Your task to perform on an android device: Check the news Image 0: 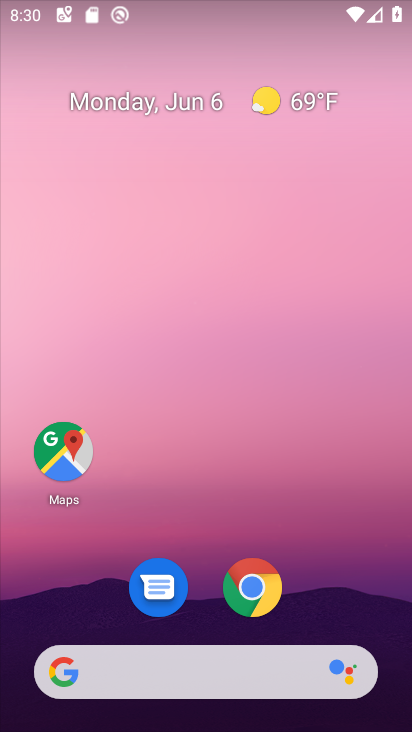
Step 0: drag from (312, 582) to (281, 213)
Your task to perform on an android device: Check the news Image 1: 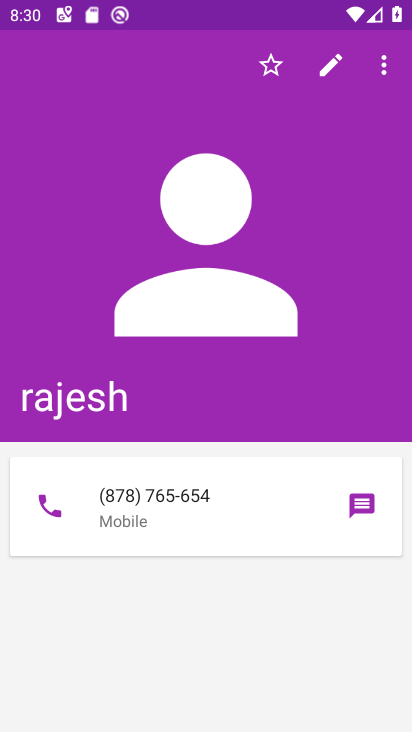
Step 1: press home button
Your task to perform on an android device: Check the news Image 2: 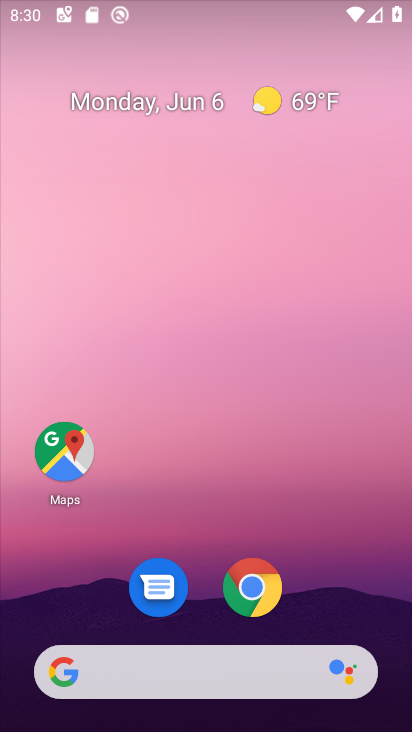
Step 2: drag from (338, 598) to (302, 217)
Your task to perform on an android device: Check the news Image 3: 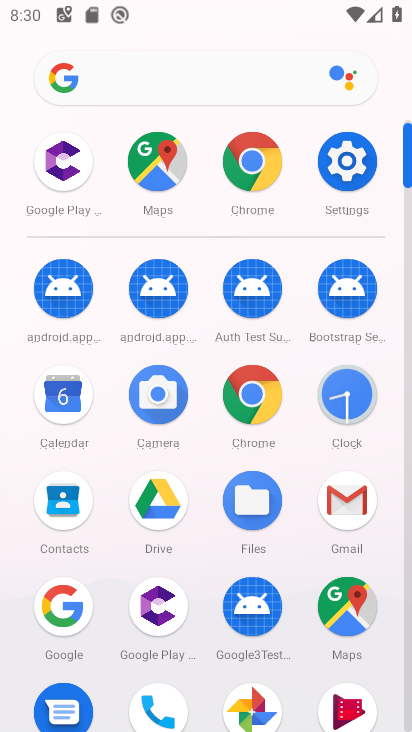
Step 3: drag from (280, 650) to (320, 333)
Your task to perform on an android device: Check the news Image 4: 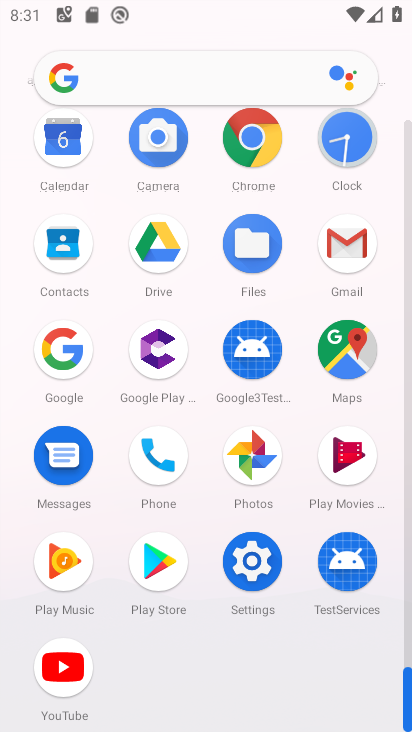
Step 4: click (251, 153)
Your task to perform on an android device: Check the news Image 5: 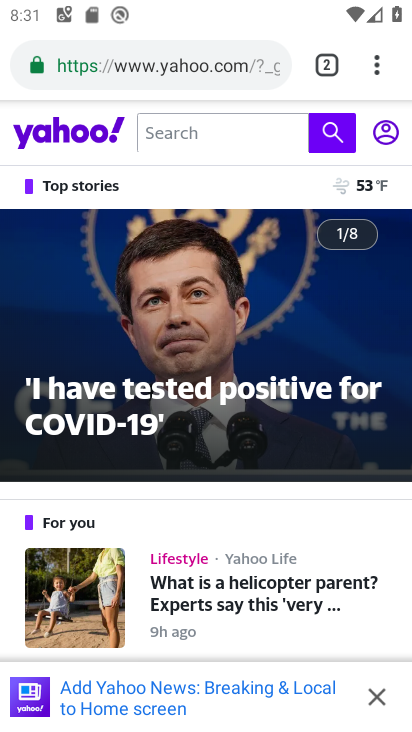
Step 5: click (255, 66)
Your task to perform on an android device: Check the news Image 6: 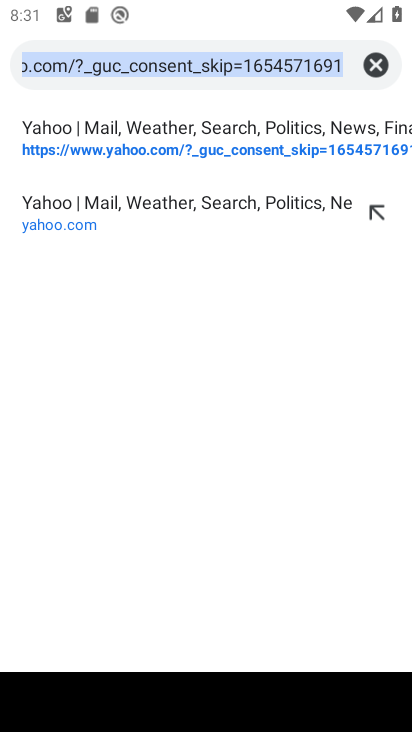
Step 6: click (379, 65)
Your task to perform on an android device: Check the news Image 7: 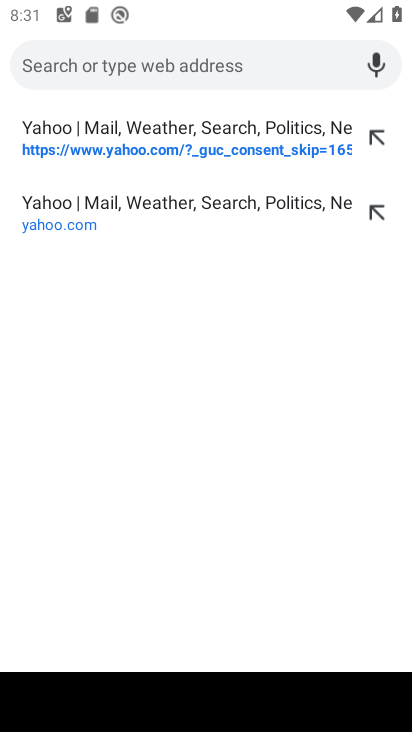
Step 7: type "check the news "
Your task to perform on an android device: Check the news Image 8: 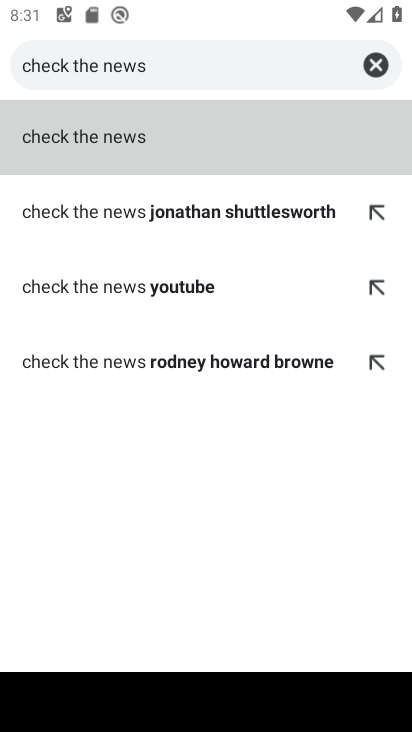
Step 8: click (117, 137)
Your task to perform on an android device: Check the news Image 9: 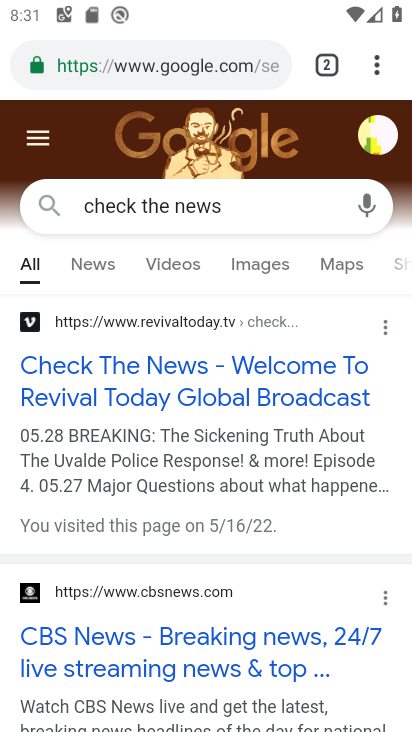
Step 9: task complete